Your task to perform on an android device: Go to Android settings Image 0: 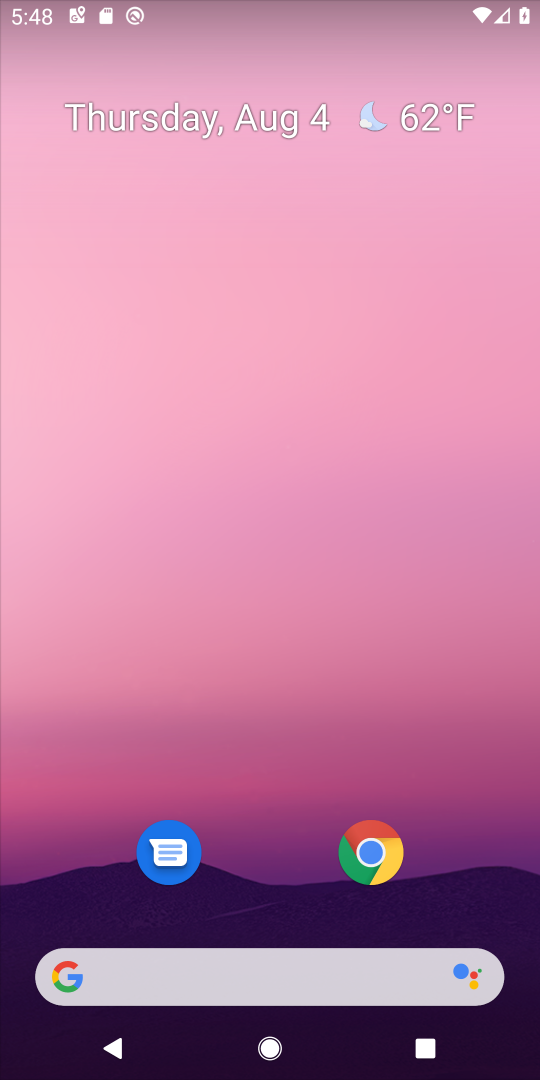
Step 0: click (276, 917)
Your task to perform on an android device: Go to Android settings Image 1: 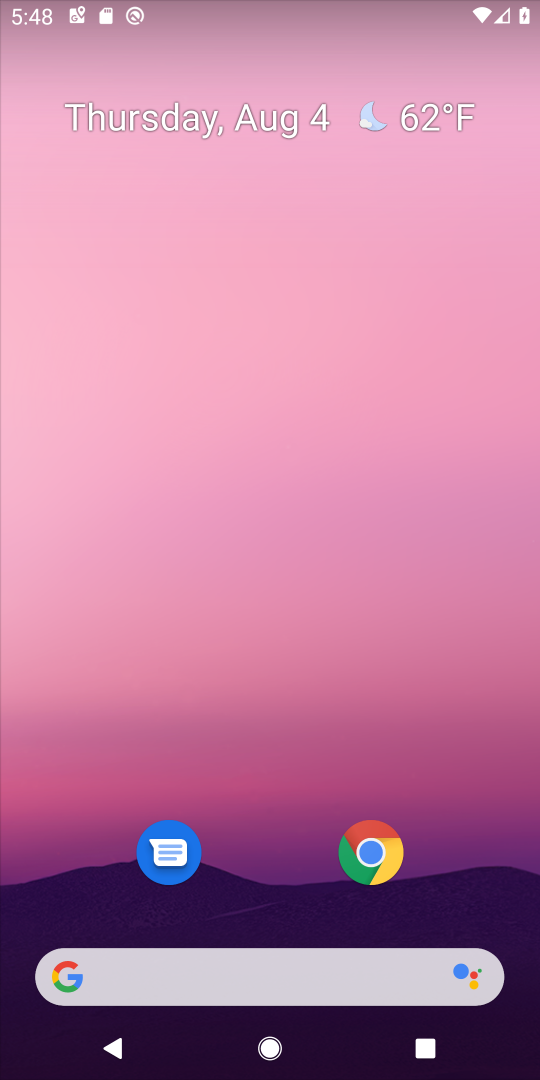
Step 1: click (276, 243)
Your task to perform on an android device: Go to Android settings Image 2: 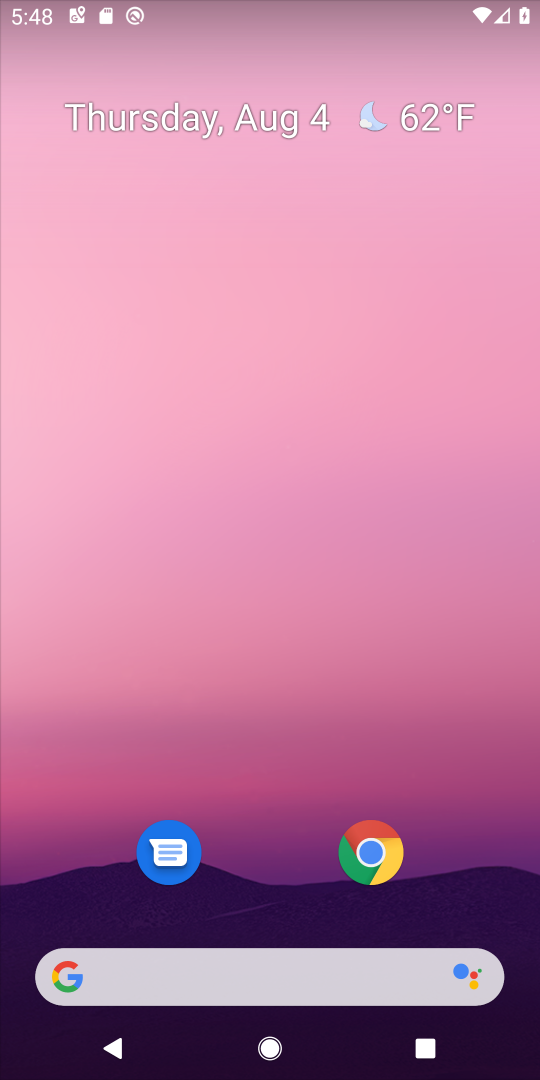
Step 2: press home button
Your task to perform on an android device: Go to Android settings Image 3: 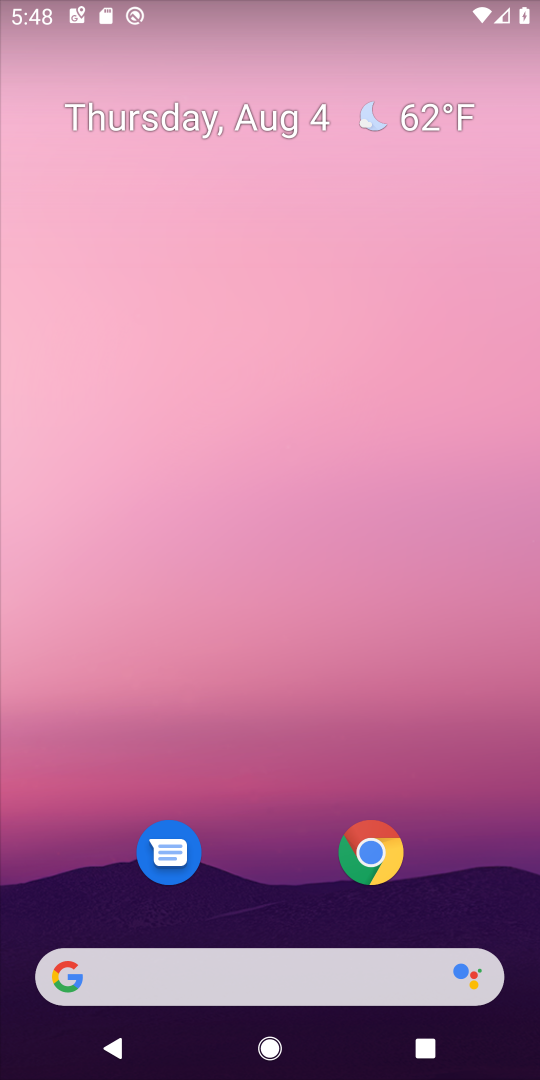
Step 3: drag from (262, 736) to (264, 0)
Your task to perform on an android device: Go to Android settings Image 4: 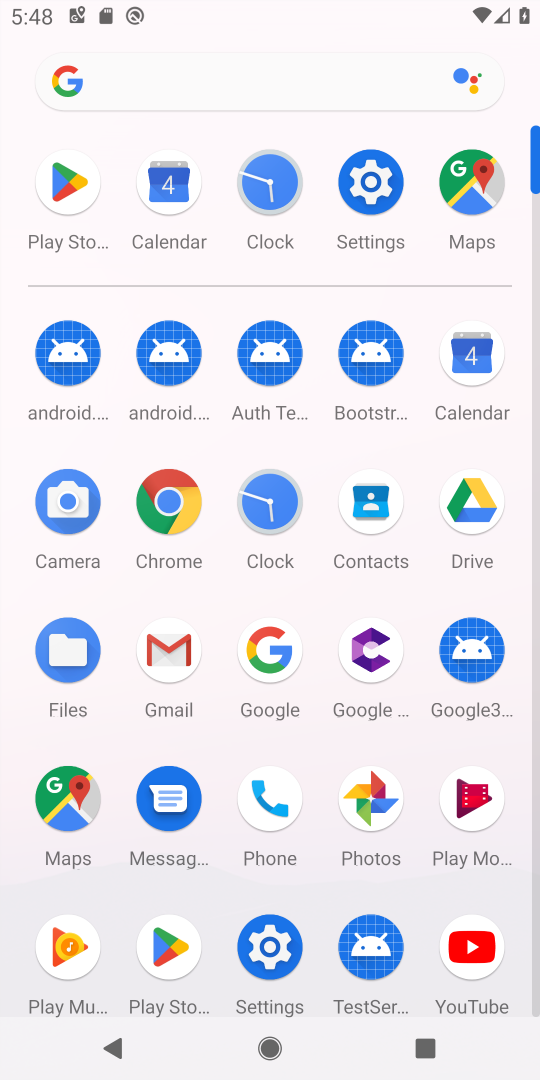
Step 4: click (376, 186)
Your task to perform on an android device: Go to Android settings Image 5: 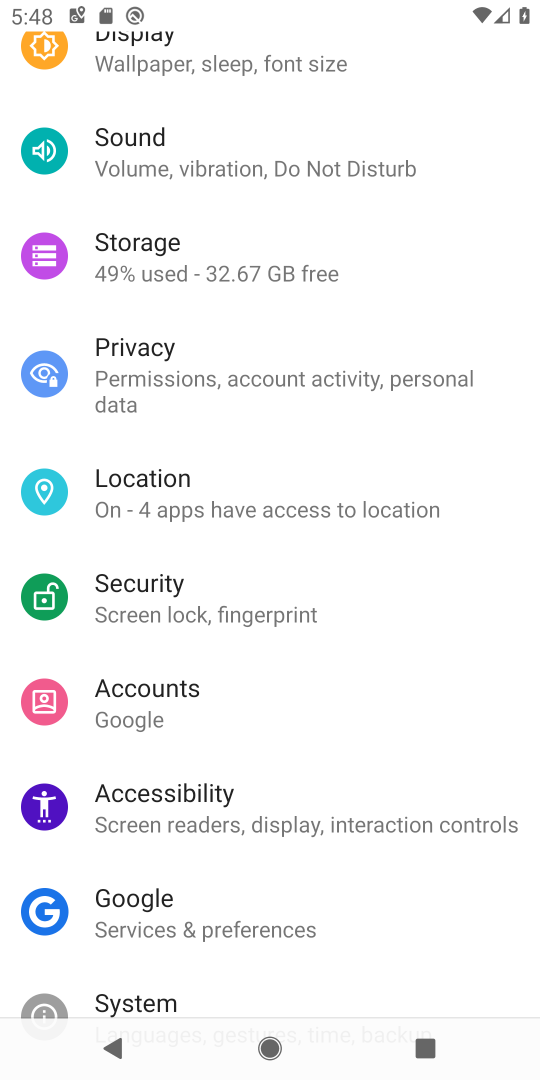
Step 5: task complete